Your task to perform on an android device: change the upload size in google photos Image 0: 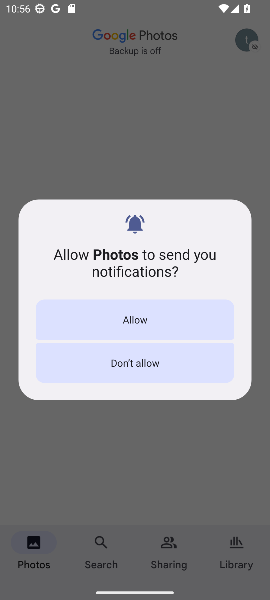
Step 0: press home button
Your task to perform on an android device: change the upload size in google photos Image 1: 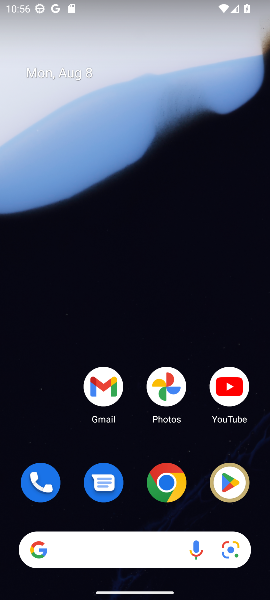
Step 1: click (166, 392)
Your task to perform on an android device: change the upload size in google photos Image 2: 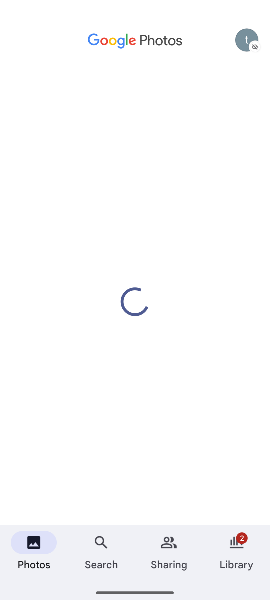
Step 2: click (248, 38)
Your task to perform on an android device: change the upload size in google photos Image 3: 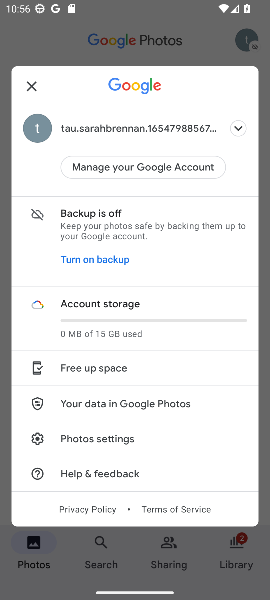
Step 3: click (73, 439)
Your task to perform on an android device: change the upload size in google photos Image 4: 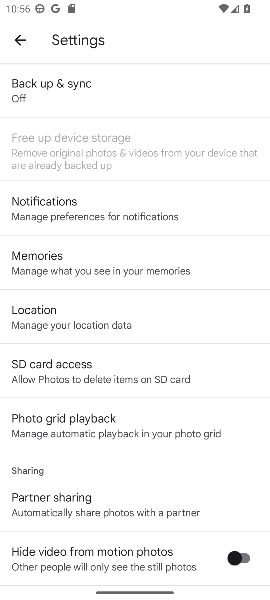
Step 4: click (97, 84)
Your task to perform on an android device: change the upload size in google photos Image 5: 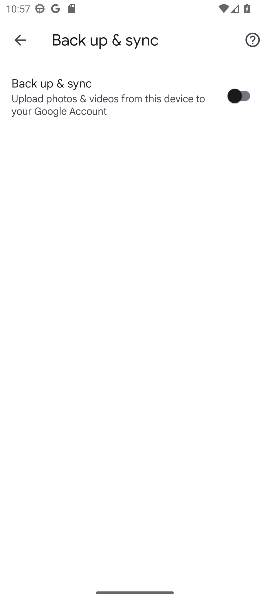
Step 5: task complete